Your task to perform on an android device: see tabs open on other devices in the chrome app Image 0: 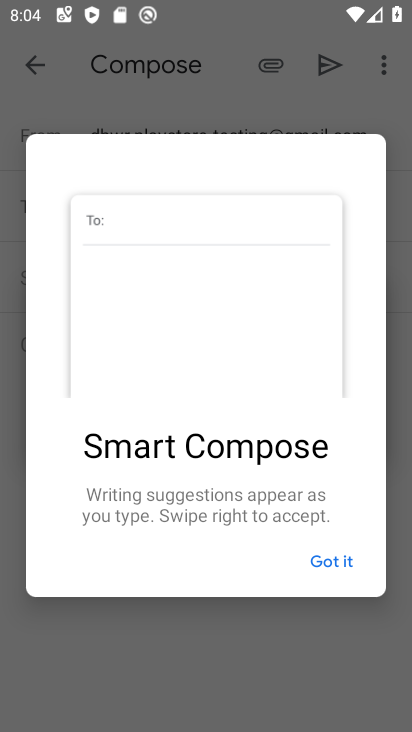
Step 0: press home button
Your task to perform on an android device: see tabs open on other devices in the chrome app Image 1: 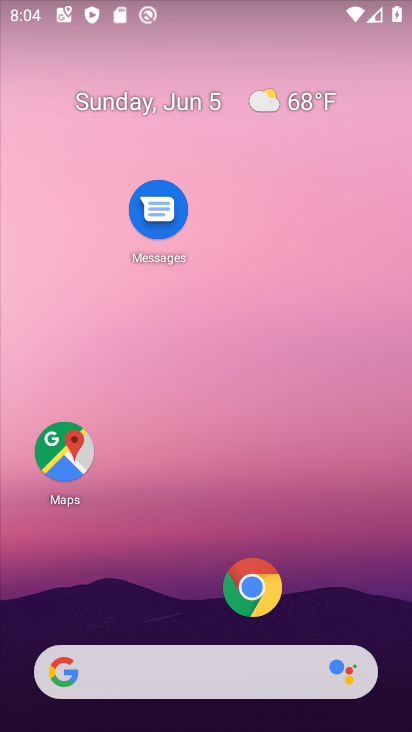
Step 1: click (253, 588)
Your task to perform on an android device: see tabs open on other devices in the chrome app Image 2: 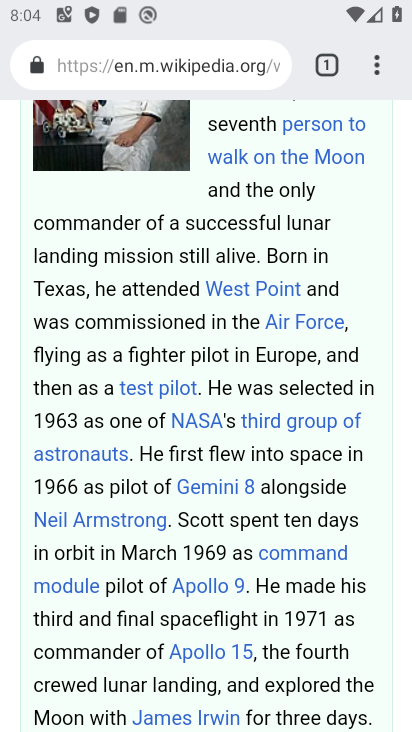
Step 2: drag from (263, 142) to (262, 651)
Your task to perform on an android device: see tabs open on other devices in the chrome app Image 3: 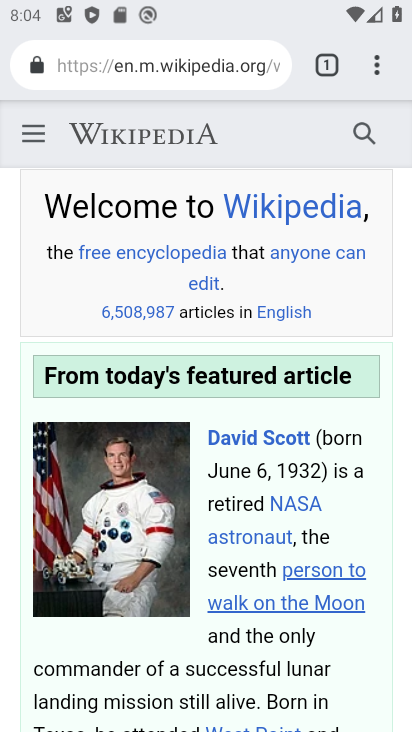
Step 3: click (326, 54)
Your task to perform on an android device: see tabs open on other devices in the chrome app Image 4: 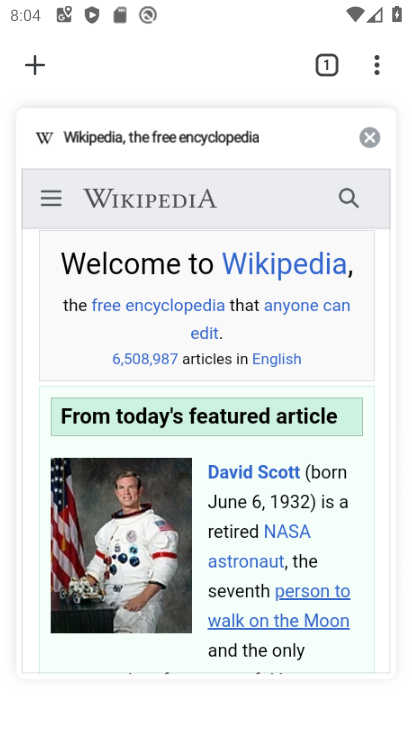
Step 4: click (33, 66)
Your task to perform on an android device: see tabs open on other devices in the chrome app Image 5: 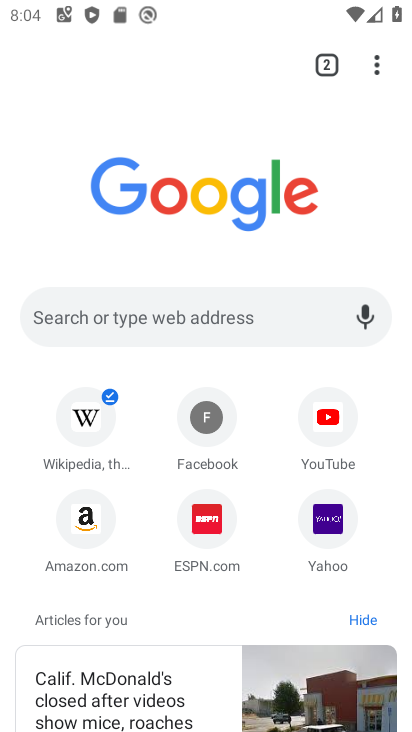
Step 5: task complete